Your task to perform on an android device: empty trash in the gmail app Image 0: 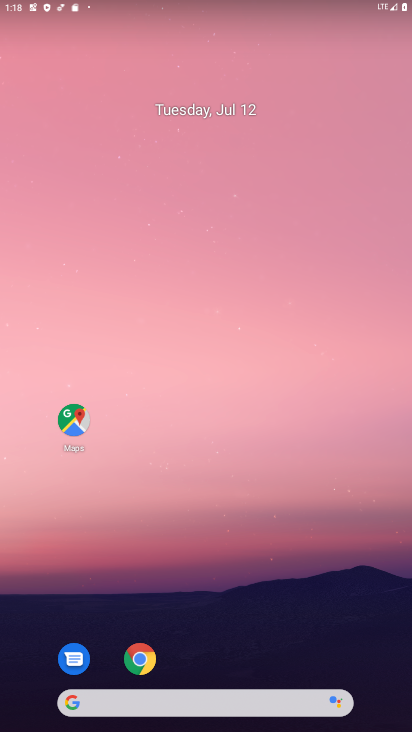
Step 0: drag from (223, 720) to (220, 218)
Your task to perform on an android device: empty trash in the gmail app Image 1: 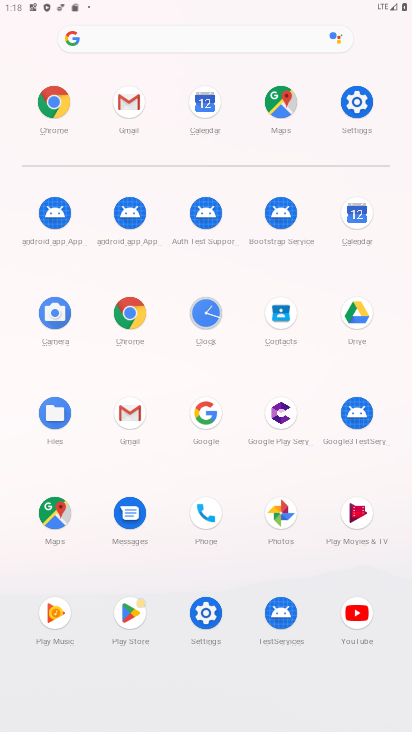
Step 1: click (126, 106)
Your task to perform on an android device: empty trash in the gmail app Image 2: 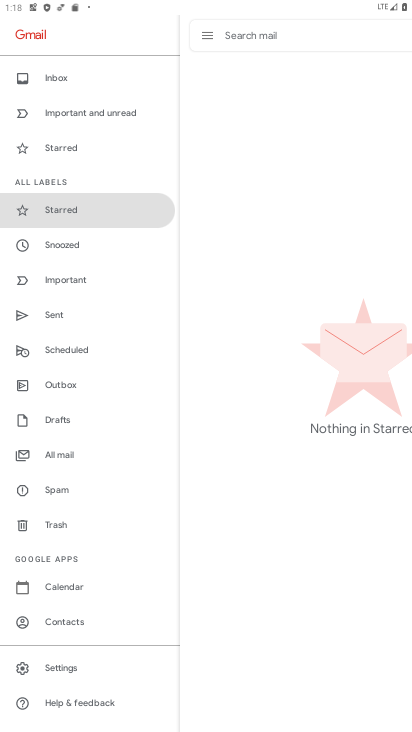
Step 2: click (57, 522)
Your task to perform on an android device: empty trash in the gmail app Image 3: 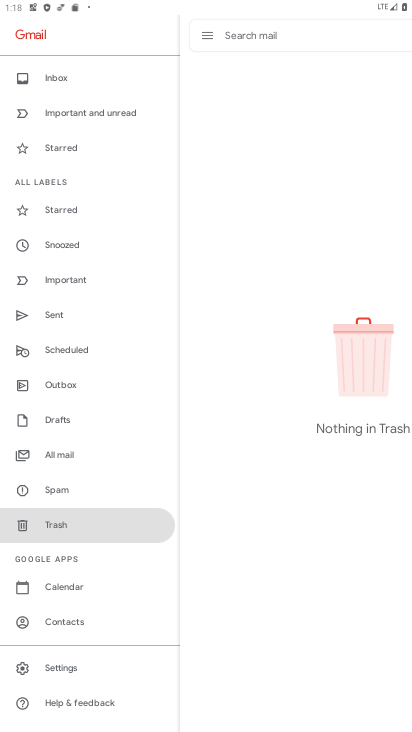
Step 3: task complete